Your task to perform on an android device: Open calendar and show me the fourth week of next month Image 0: 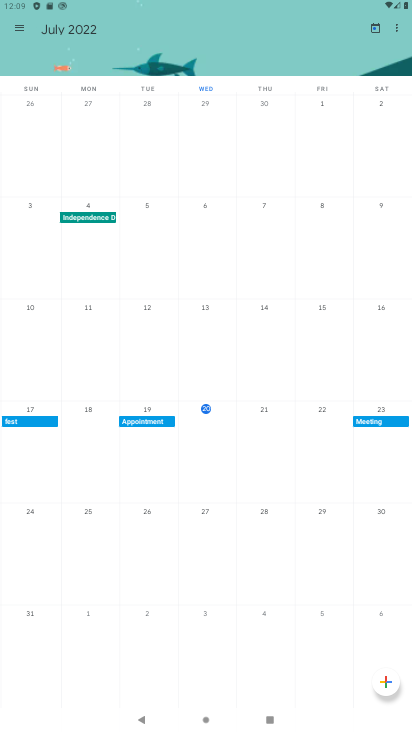
Step 0: click (89, 35)
Your task to perform on an android device: Open calendar and show me the fourth week of next month Image 1: 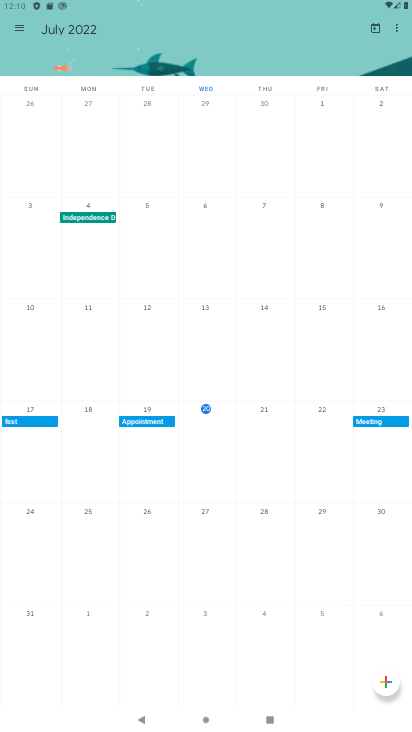
Step 1: click (62, 31)
Your task to perform on an android device: Open calendar and show me the fourth week of next month Image 2: 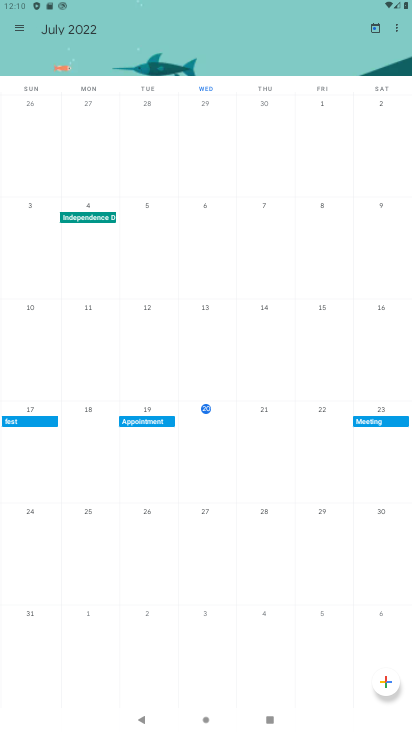
Step 2: click (62, 31)
Your task to perform on an android device: Open calendar and show me the fourth week of next month Image 3: 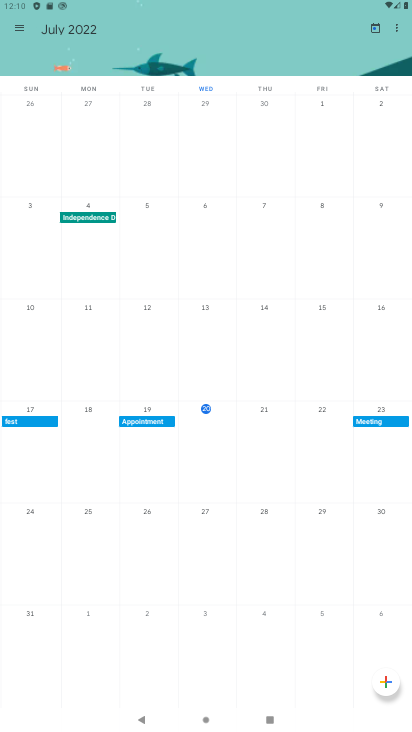
Step 3: click (62, 31)
Your task to perform on an android device: Open calendar and show me the fourth week of next month Image 4: 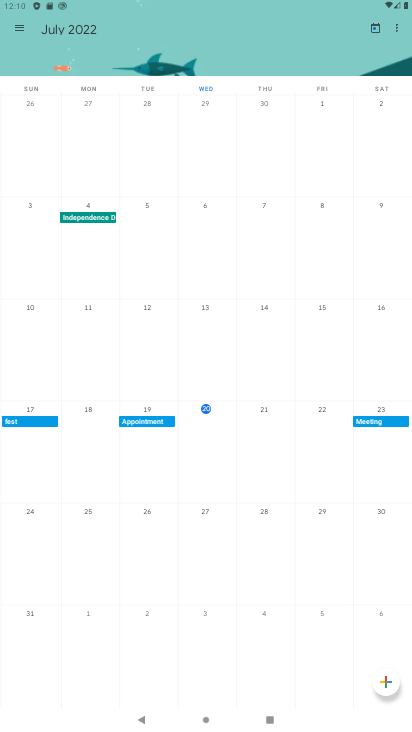
Step 4: click (62, 31)
Your task to perform on an android device: Open calendar and show me the fourth week of next month Image 5: 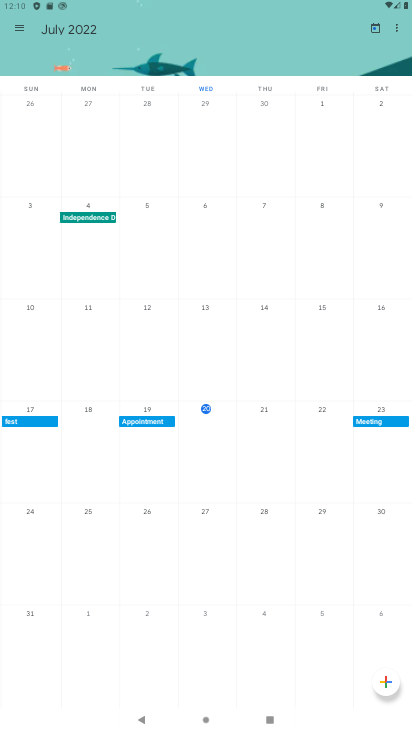
Step 5: click (62, 31)
Your task to perform on an android device: Open calendar and show me the fourth week of next month Image 6: 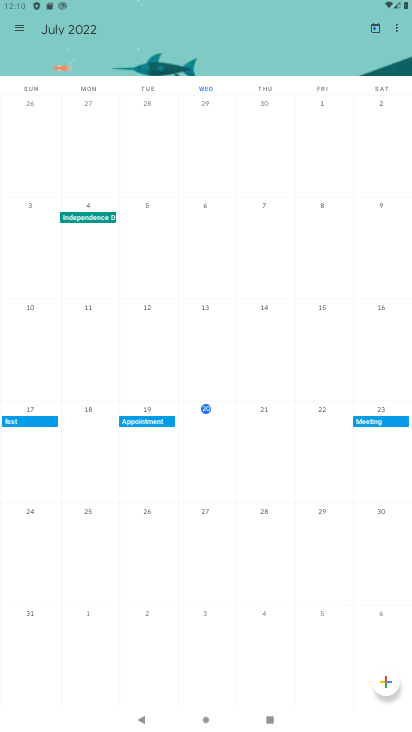
Step 6: click (62, 31)
Your task to perform on an android device: Open calendar and show me the fourth week of next month Image 7: 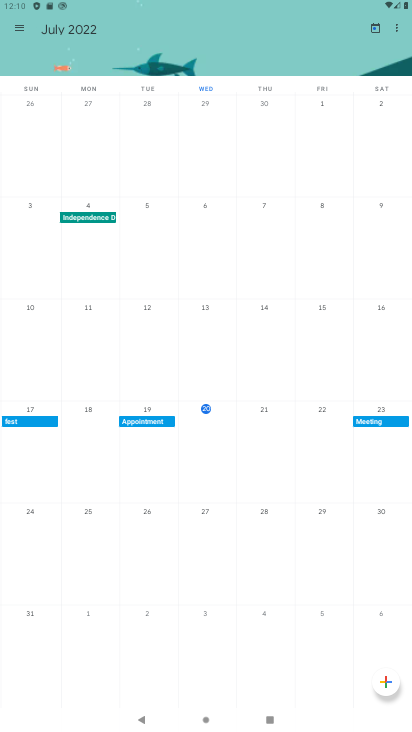
Step 7: click (62, 31)
Your task to perform on an android device: Open calendar and show me the fourth week of next month Image 8: 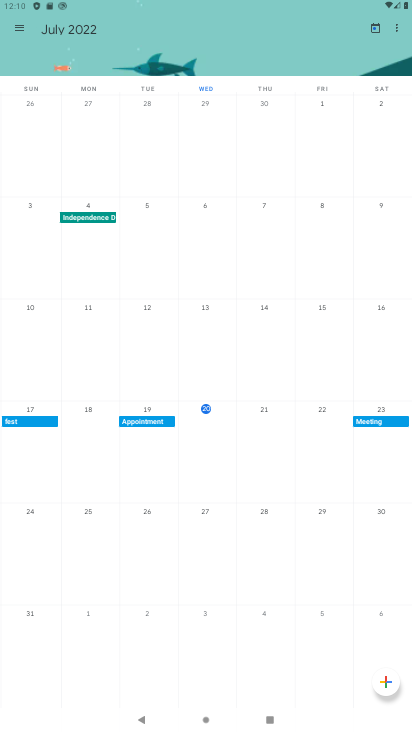
Step 8: click (62, 31)
Your task to perform on an android device: Open calendar and show me the fourth week of next month Image 9: 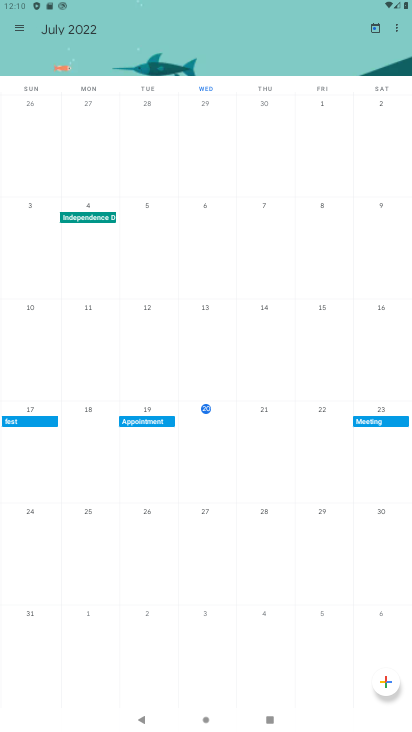
Step 9: drag from (257, 558) to (5, 613)
Your task to perform on an android device: Open calendar and show me the fourth week of next month Image 10: 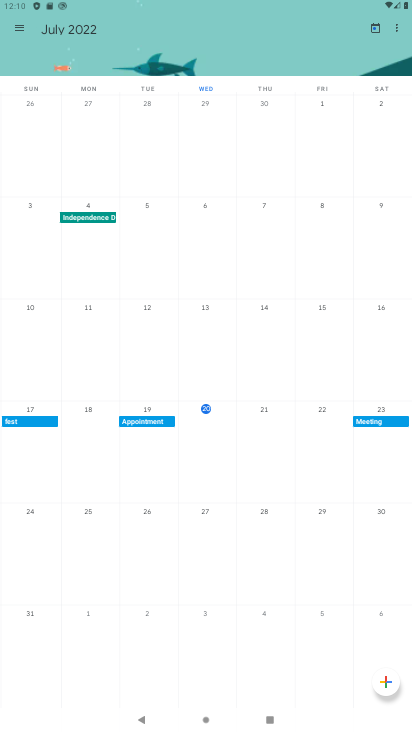
Step 10: drag from (252, 654) to (250, 3)
Your task to perform on an android device: Open calendar and show me the fourth week of next month Image 11: 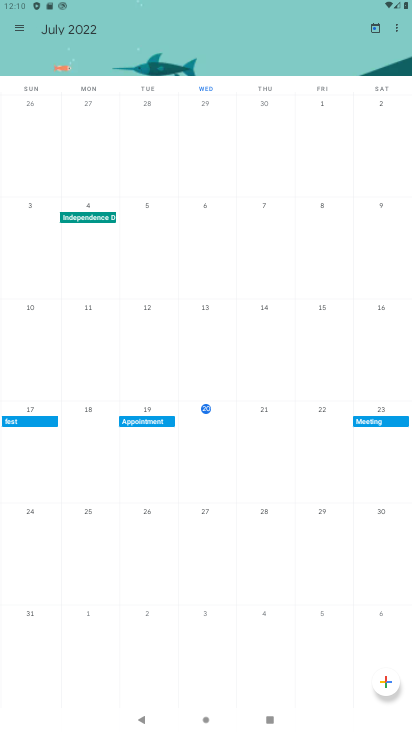
Step 11: drag from (185, 542) to (274, 0)
Your task to perform on an android device: Open calendar and show me the fourth week of next month Image 12: 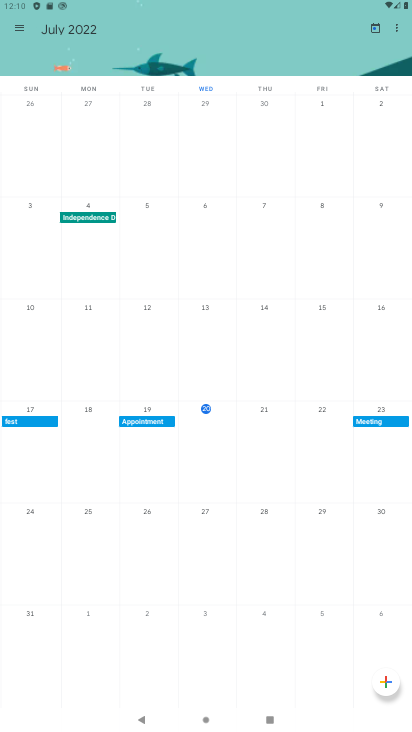
Step 12: drag from (324, 519) to (17, 548)
Your task to perform on an android device: Open calendar and show me the fourth week of next month Image 13: 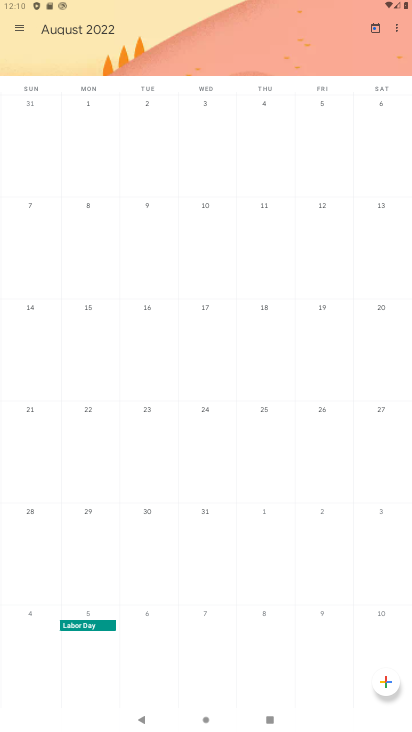
Step 13: click (28, 414)
Your task to perform on an android device: Open calendar and show me the fourth week of next month Image 14: 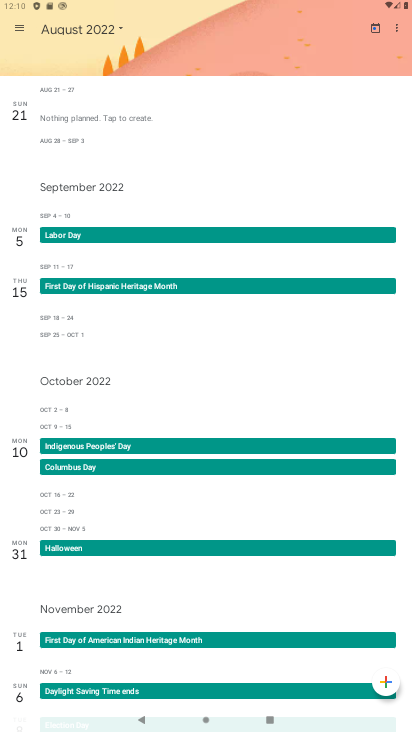
Step 14: task complete